Your task to perform on an android device: Show me recent news Image 0: 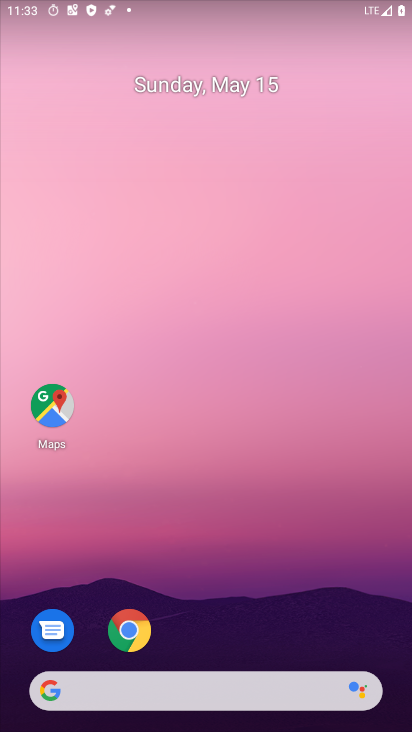
Step 0: click (211, 701)
Your task to perform on an android device: Show me recent news Image 1: 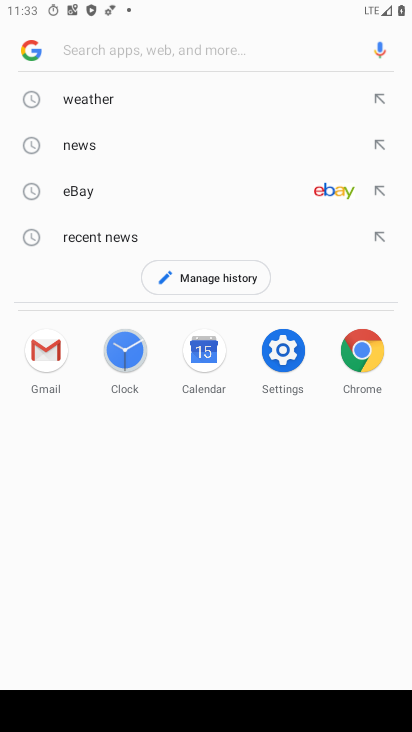
Step 1: click (126, 234)
Your task to perform on an android device: Show me recent news Image 2: 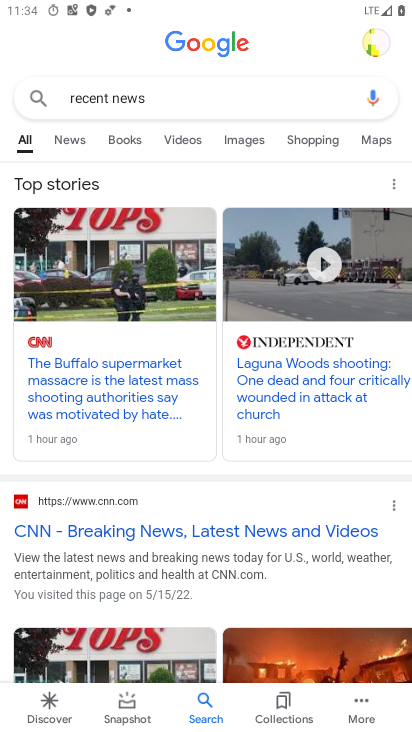
Step 2: task complete